Your task to perform on an android device: Open battery settings Image 0: 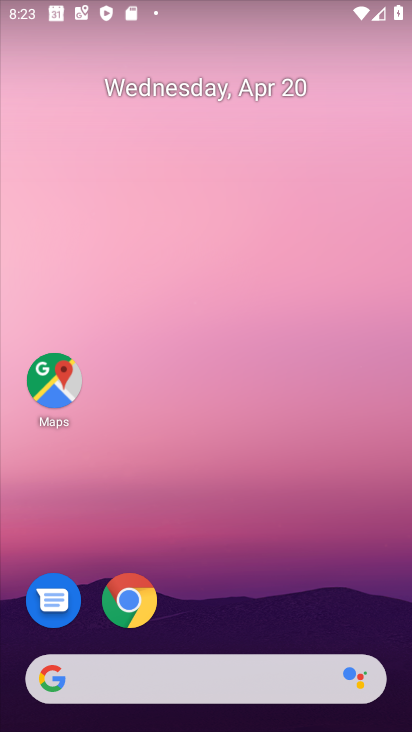
Step 0: drag from (214, 618) to (275, 158)
Your task to perform on an android device: Open battery settings Image 1: 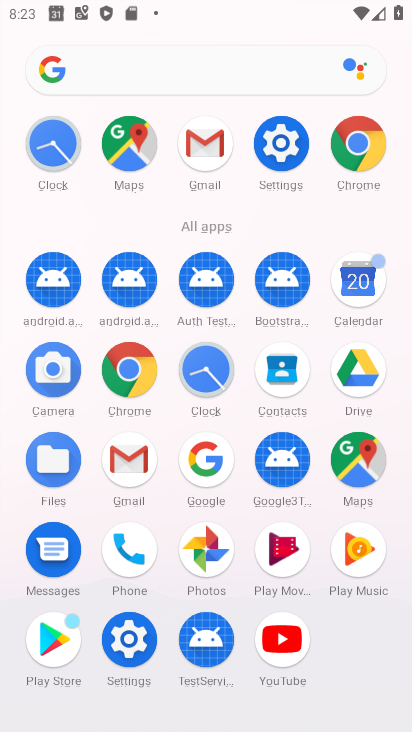
Step 1: click (291, 154)
Your task to perform on an android device: Open battery settings Image 2: 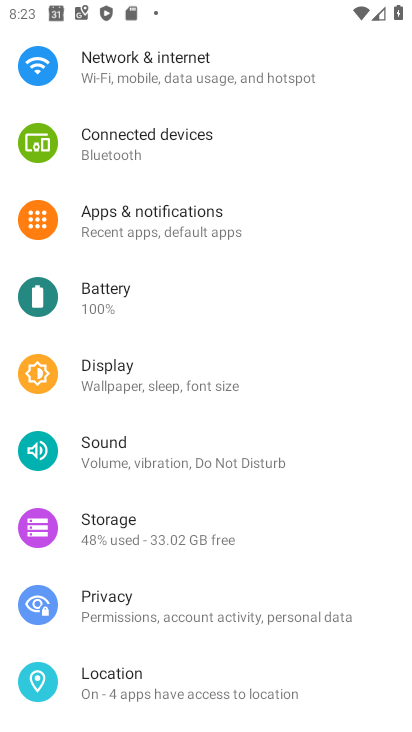
Step 2: click (124, 311)
Your task to perform on an android device: Open battery settings Image 3: 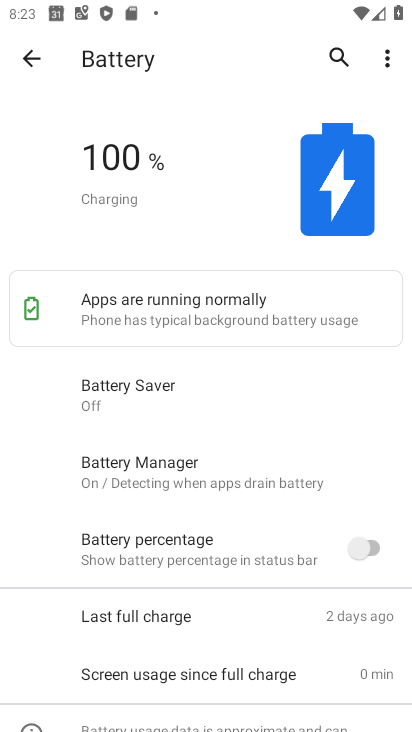
Step 3: task complete